Your task to perform on an android device: turn off sleep mode Image 0: 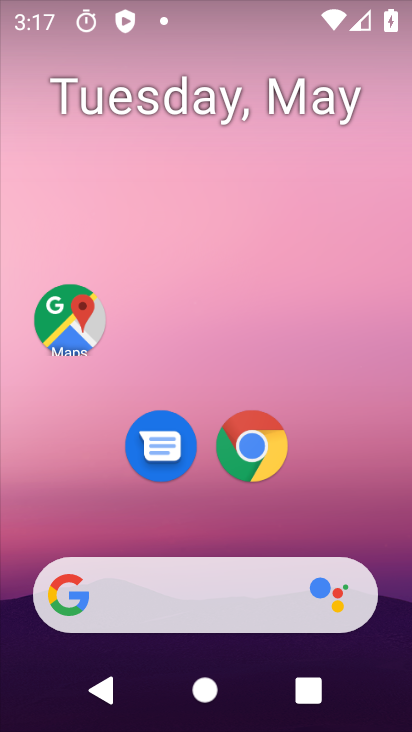
Step 0: drag from (224, 724) to (238, 88)
Your task to perform on an android device: turn off sleep mode Image 1: 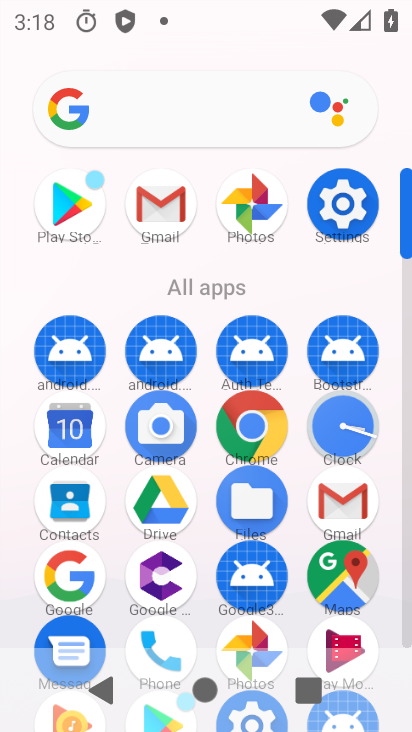
Step 1: click (342, 214)
Your task to perform on an android device: turn off sleep mode Image 2: 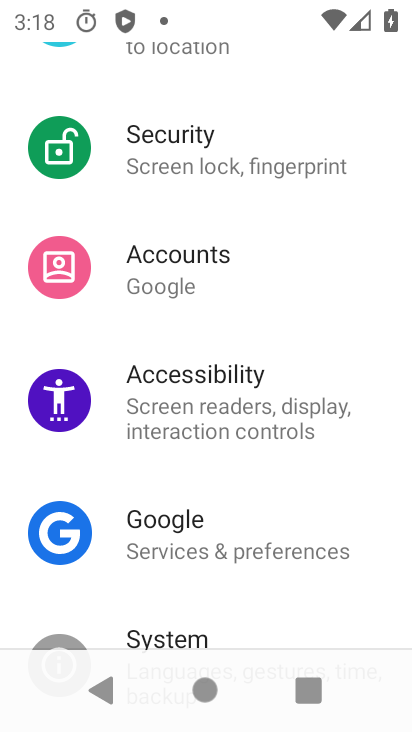
Step 2: task complete